Your task to perform on an android device: Open the phone app and click the voicemail tab. Image 0: 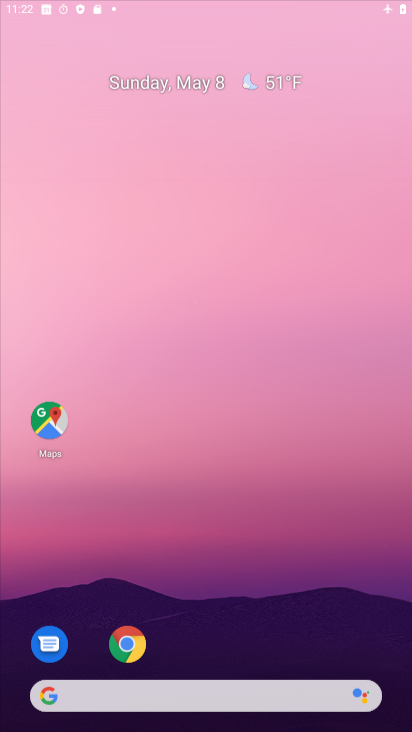
Step 0: drag from (217, 620) to (271, 217)
Your task to perform on an android device: Open the phone app and click the voicemail tab. Image 1: 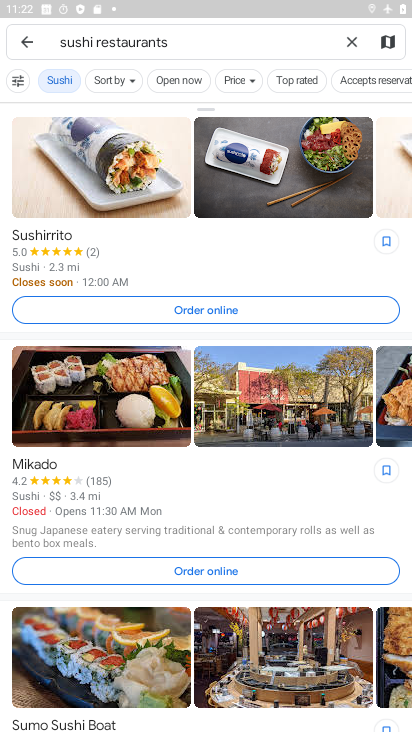
Step 1: drag from (215, 241) to (257, 630)
Your task to perform on an android device: Open the phone app and click the voicemail tab. Image 2: 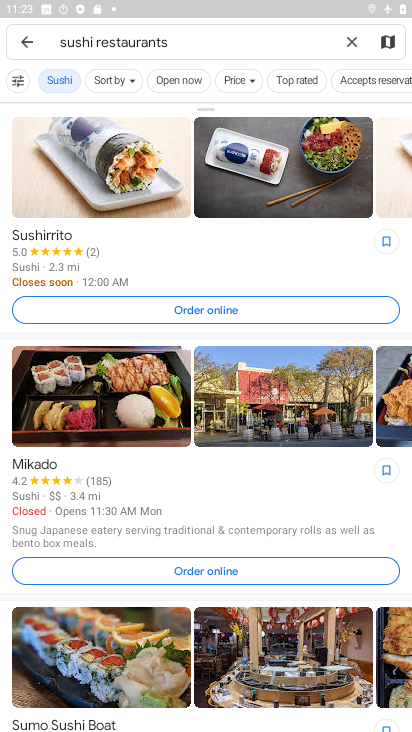
Step 2: press home button
Your task to perform on an android device: Open the phone app and click the voicemail tab. Image 3: 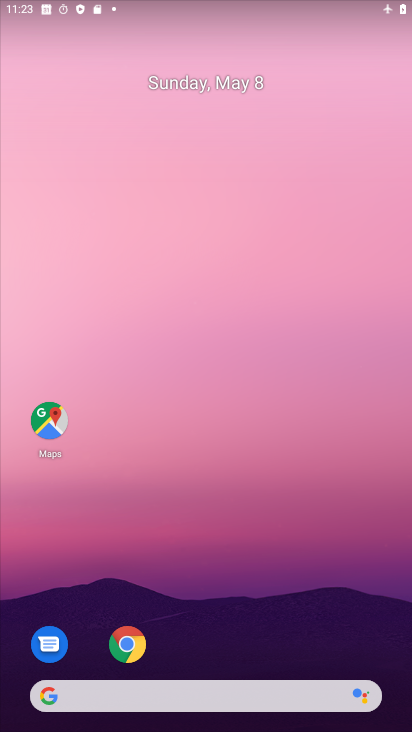
Step 3: drag from (221, 656) to (280, 184)
Your task to perform on an android device: Open the phone app and click the voicemail tab. Image 4: 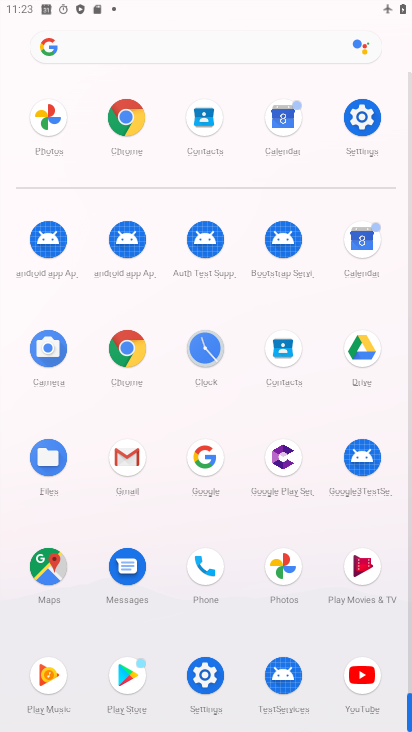
Step 4: click (198, 572)
Your task to perform on an android device: Open the phone app and click the voicemail tab. Image 5: 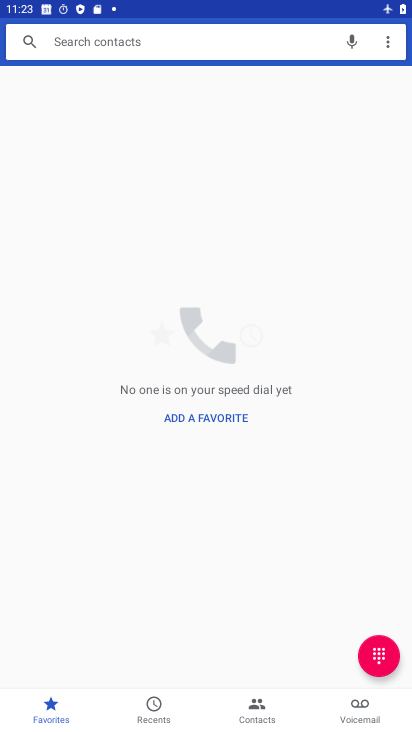
Step 5: click (350, 715)
Your task to perform on an android device: Open the phone app and click the voicemail tab. Image 6: 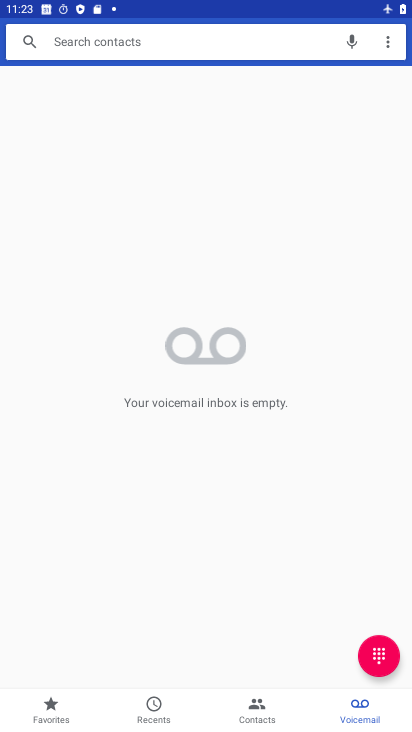
Step 6: click (360, 713)
Your task to perform on an android device: Open the phone app and click the voicemail tab. Image 7: 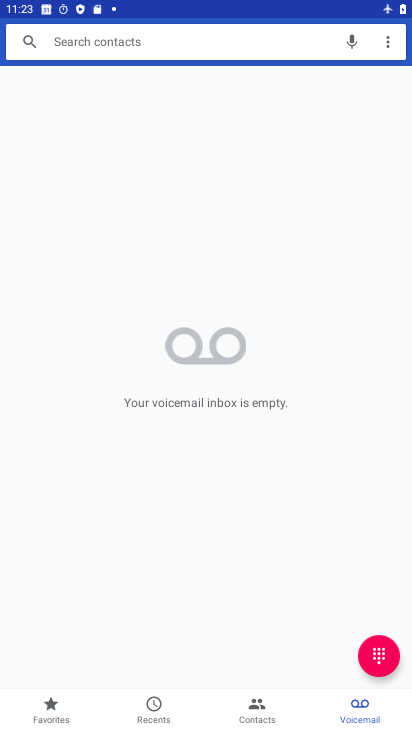
Step 7: task complete